Your task to perform on an android device: Turn on the flashlight Image 0: 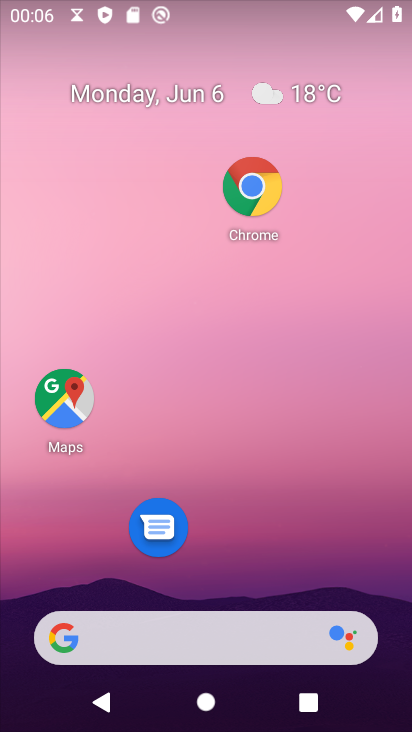
Step 0: drag from (266, 249) to (411, 505)
Your task to perform on an android device: Turn on the flashlight Image 1: 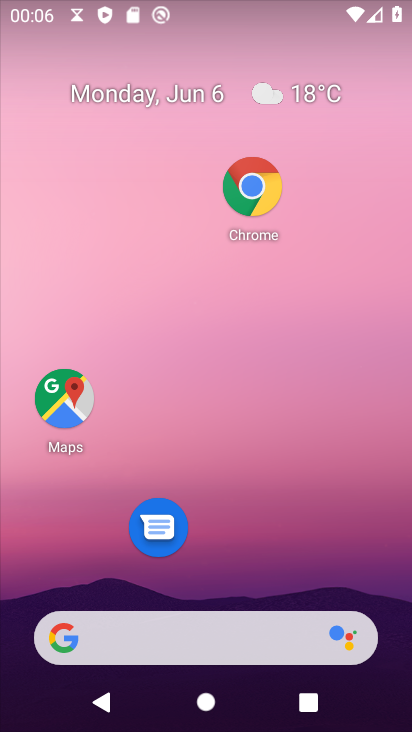
Step 1: task complete